Your task to perform on an android device: Do I have any events today? Image 0: 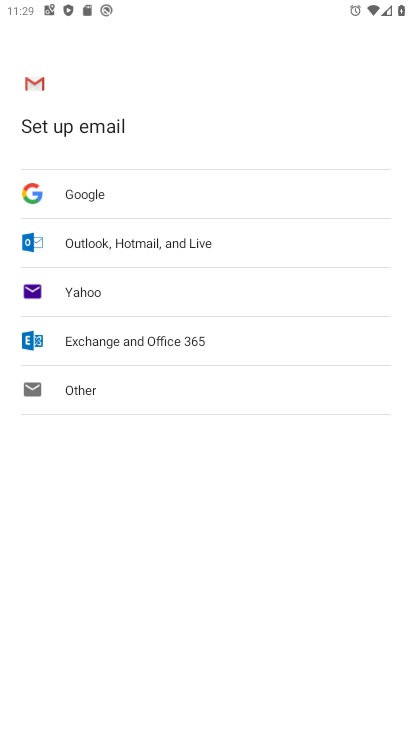
Step 0: press home button
Your task to perform on an android device: Do I have any events today? Image 1: 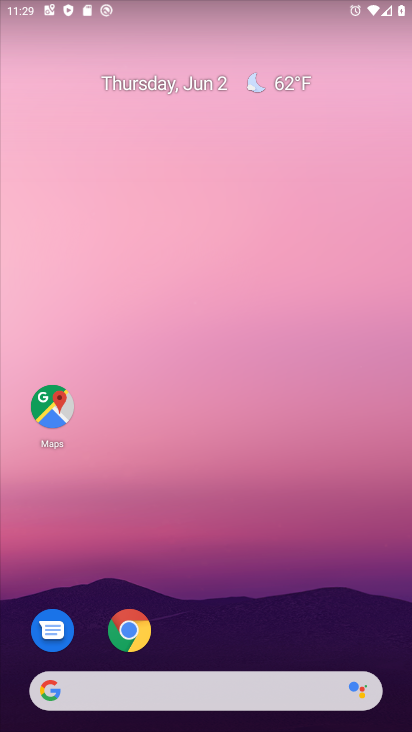
Step 1: drag from (236, 507) to (315, 59)
Your task to perform on an android device: Do I have any events today? Image 2: 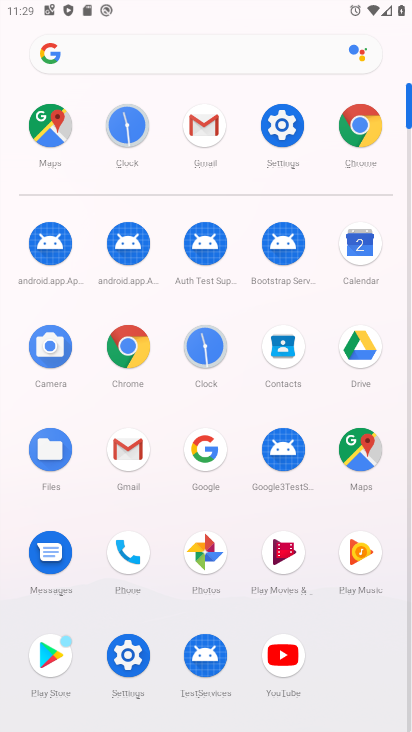
Step 2: click (363, 252)
Your task to perform on an android device: Do I have any events today? Image 3: 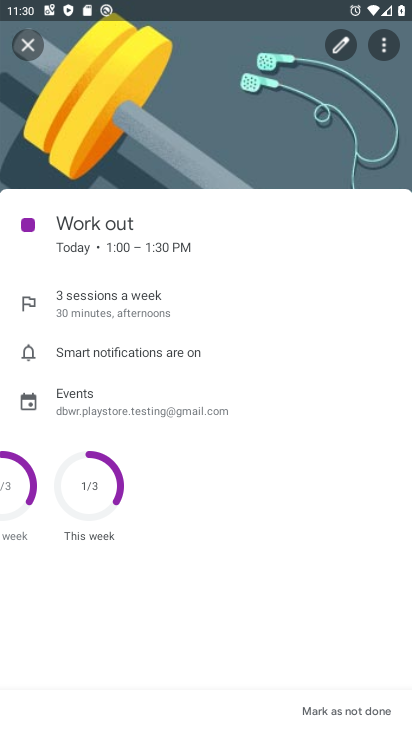
Step 3: task complete